Your task to perform on an android device: check out phone information Image 0: 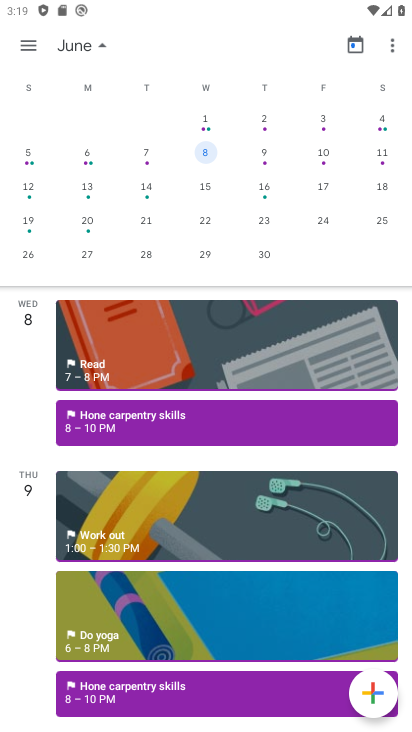
Step 0: press home button
Your task to perform on an android device: check out phone information Image 1: 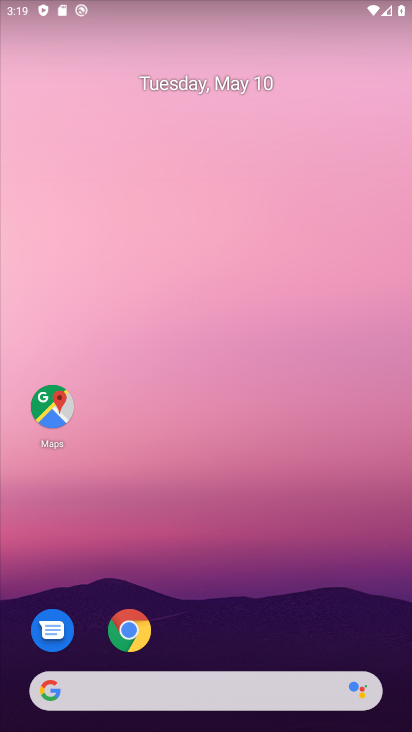
Step 1: drag from (189, 652) to (147, 174)
Your task to perform on an android device: check out phone information Image 2: 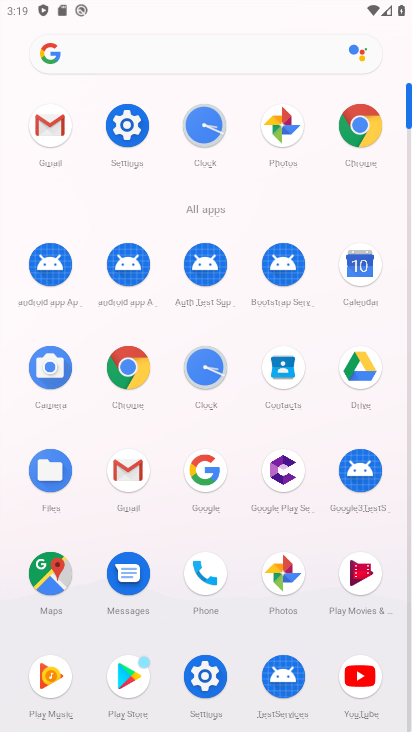
Step 2: click (129, 134)
Your task to perform on an android device: check out phone information Image 3: 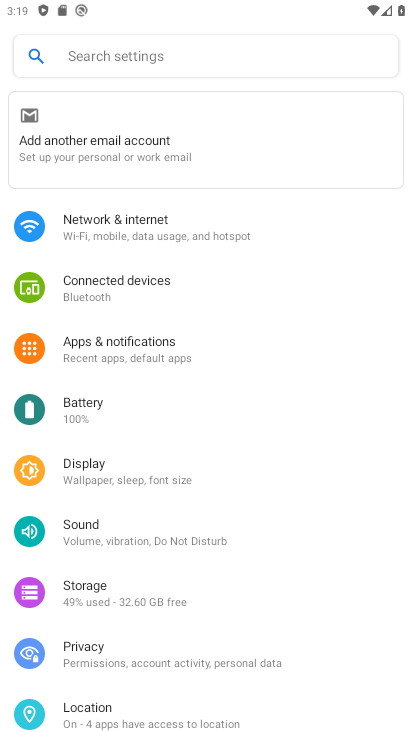
Step 3: drag from (113, 689) to (110, 166)
Your task to perform on an android device: check out phone information Image 4: 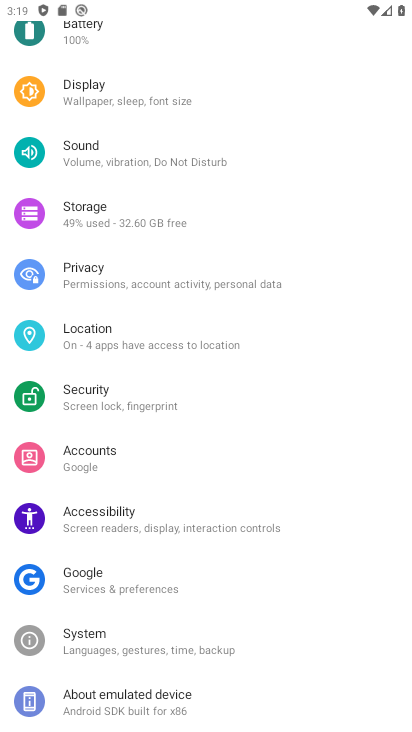
Step 4: drag from (152, 653) to (135, 195)
Your task to perform on an android device: check out phone information Image 5: 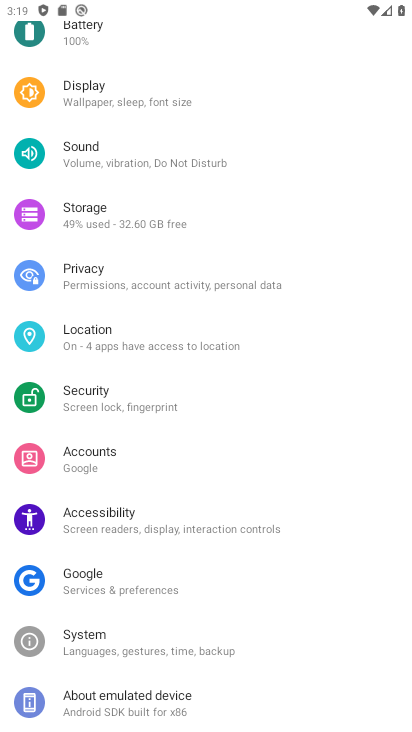
Step 5: drag from (181, 667) to (176, 471)
Your task to perform on an android device: check out phone information Image 6: 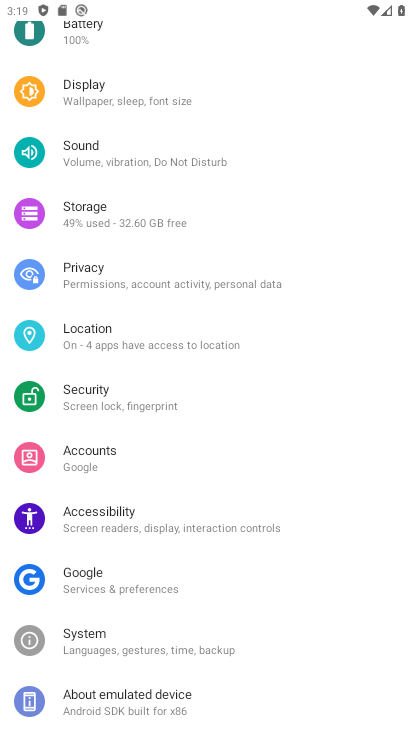
Step 6: click (106, 710)
Your task to perform on an android device: check out phone information Image 7: 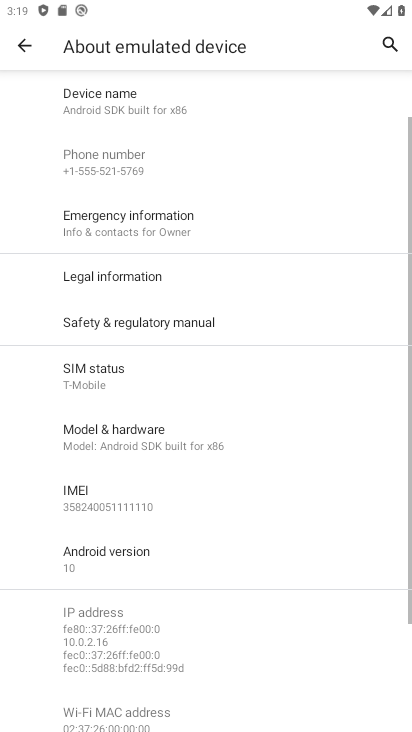
Step 7: task complete